Your task to perform on an android device: Show me productivity apps on the Play Store Image 0: 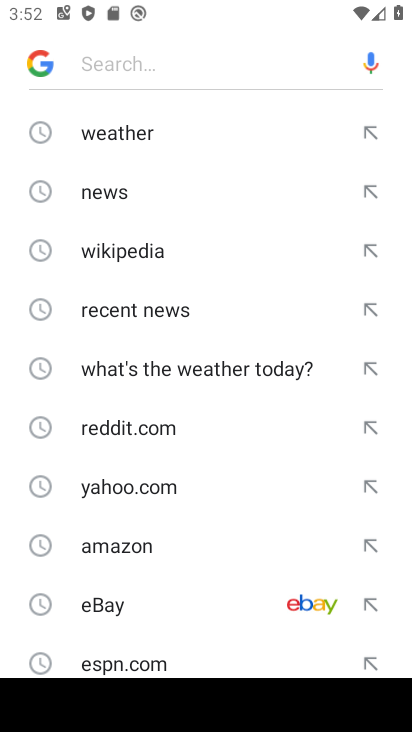
Step 0: press back button
Your task to perform on an android device: Show me productivity apps on the Play Store Image 1: 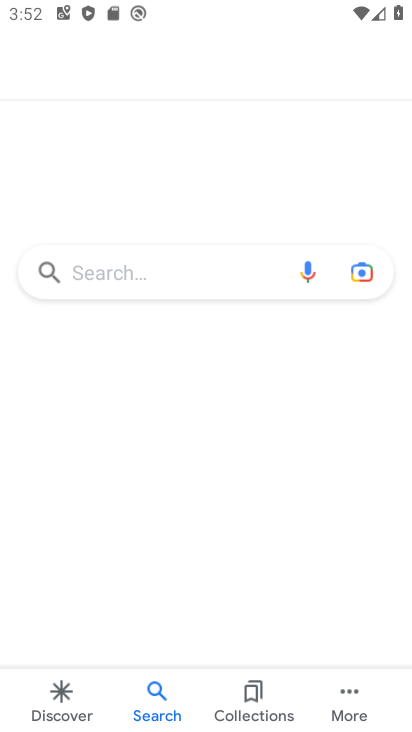
Step 1: press back button
Your task to perform on an android device: Show me productivity apps on the Play Store Image 2: 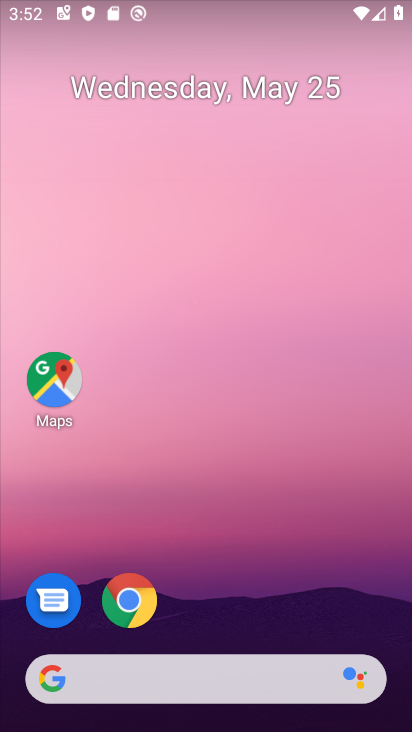
Step 2: drag from (12, 527) to (145, 161)
Your task to perform on an android device: Show me productivity apps on the Play Store Image 3: 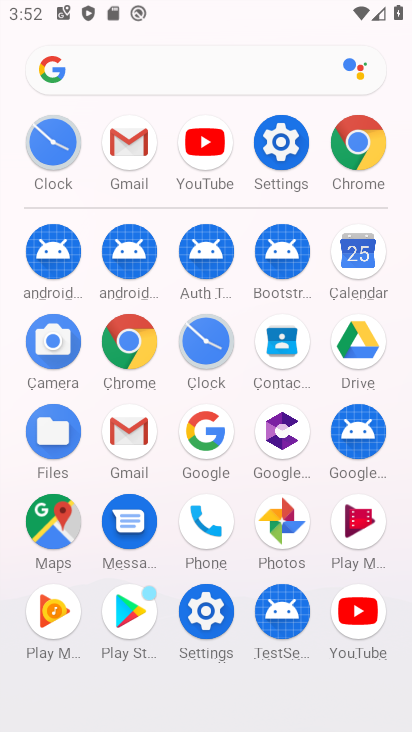
Step 3: click (140, 610)
Your task to perform on an android device: Show me productivity apps on the Play Store Image 4: 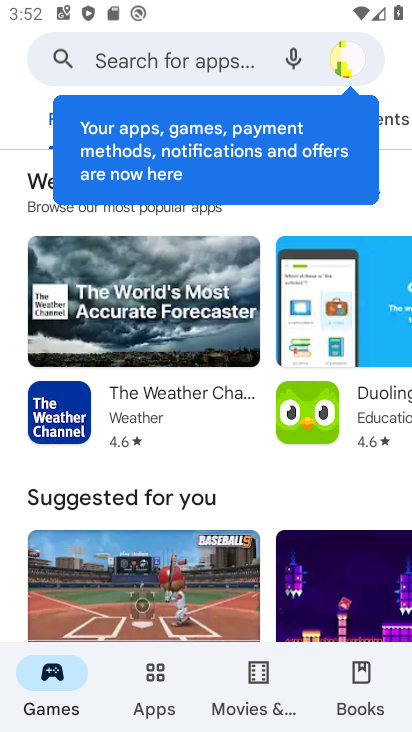
Step 4: click (168, 673)
Your task to perform on an android device: Show me productivity apps on the Play Store Image 5: 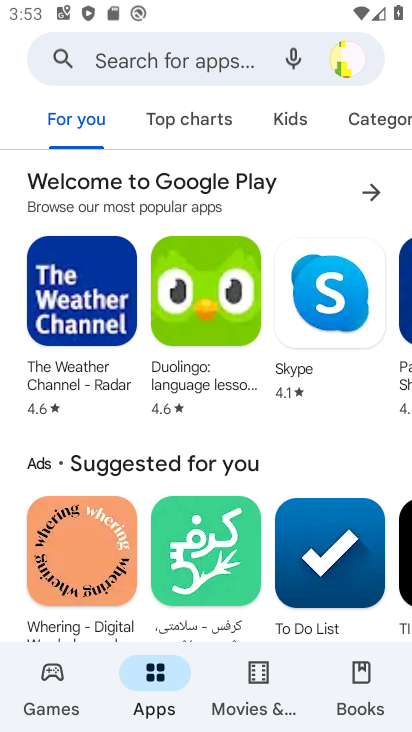
Step 5: task complete